Your task to perform on an android device: open app "Pandora - Music & Podcasts" (install if not already installed) Image 0: 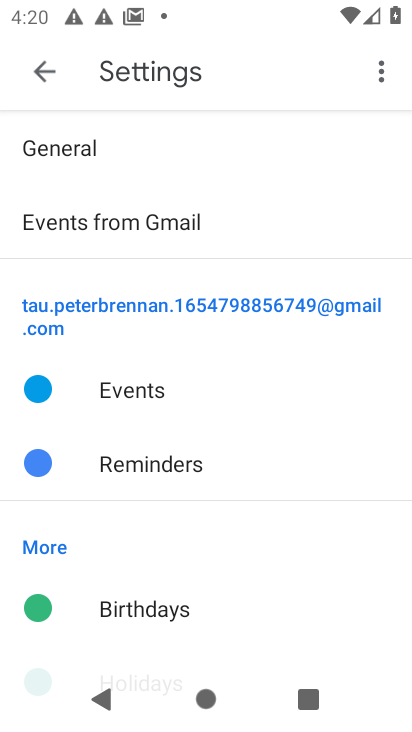
Step 0: press home button
Your task to perform on an android device: open app "Pandora - Music & Podcasts" (install if not already installed) Image 1: 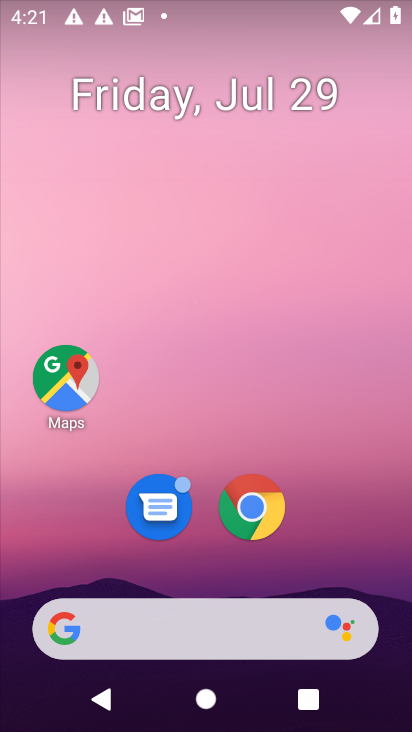
Step 1: drag from (359, 585) to (322, 2)
Your task to perform on an android device: open app "Pandora - Music & Podcasts" (install if not already installed) Image 2: 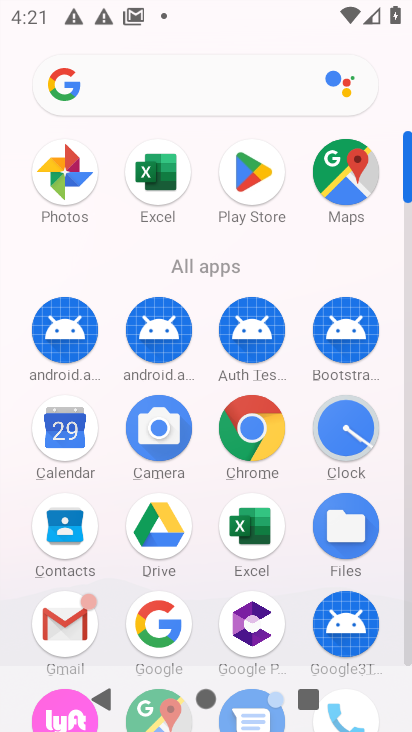
Step 2: click (249, 176)
Your task to perform on an android device: open app "Pandora - Music & Podcasts" (install if not already installed) Image 3: 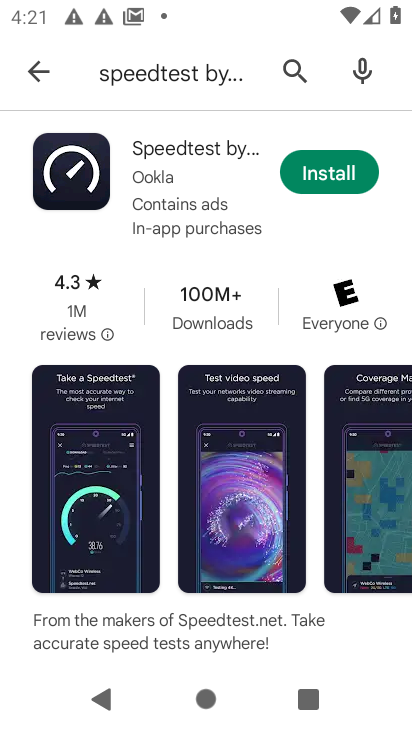
Step 3: click (295, 61)
Your task to perform on an android device: open app "Pandora - Music & Podcasts" (install if not already installed) Image 4: 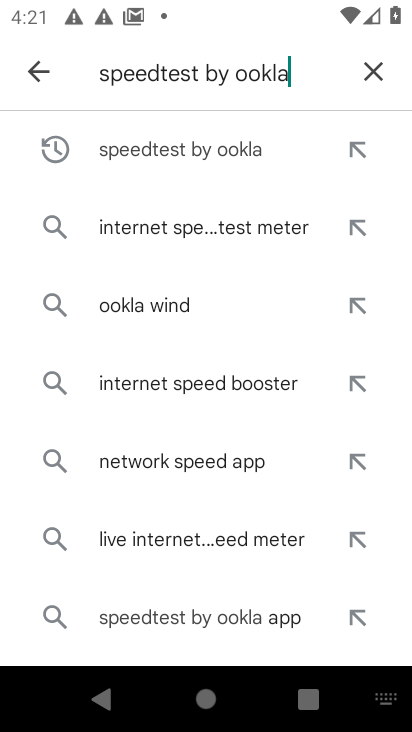
Step 4: click (374, 72)
Your task to perform on an android device: open app "Pandora - Music & Podcasts" (install if not already installed) Image 5: 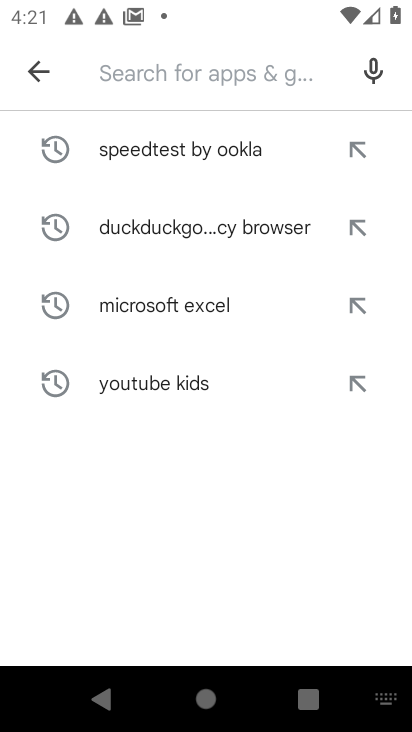
Step 5: type "Pandora - Music & Podcasts"
Your task to perform on an android device: open app "Pandora - Music & Podcasts" (install if not already installed) Image 6: 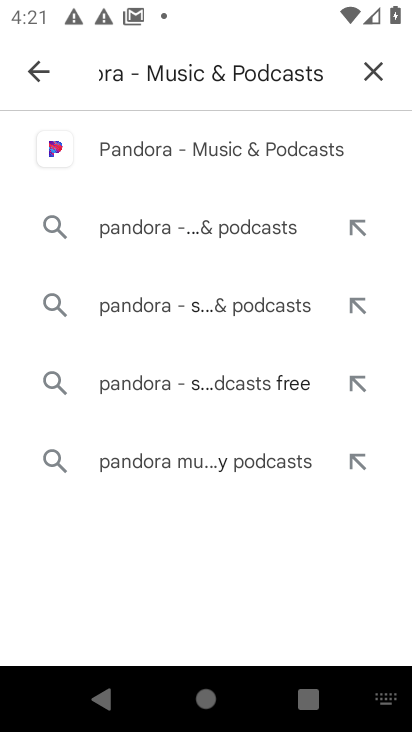
Step 6: click (195, 165)
Your task to perform on an android device: open app "Pandora - Music & Podcasts" (install if not already installed) Image 7: 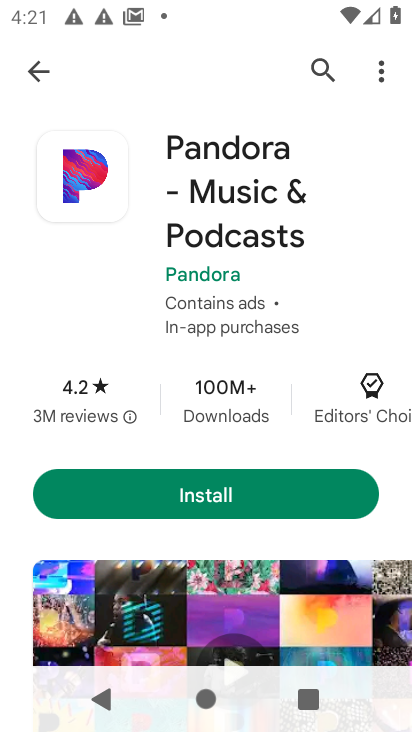
Step 7: click (210, 499)
Your task to perform on an android device: open app "Pandora - Music & Podcasts" (install if not already installed) Image 8: 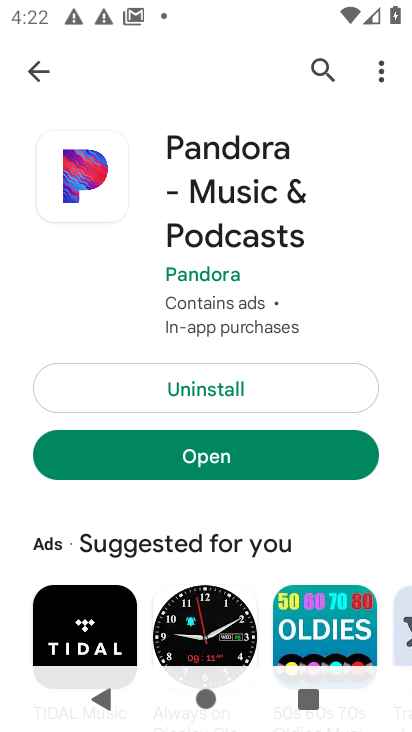
Step 8: click (244, 450)
Your task to perform on an android device: open app "Pandora - Music & Podcasts" (install if not already installed) Image 9: 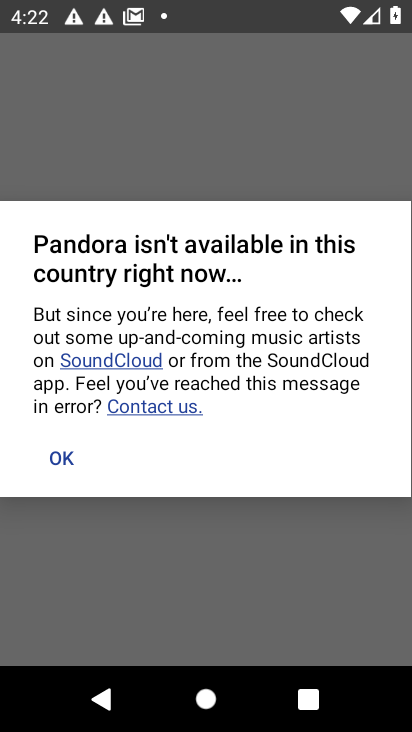
Step 9: task complete